Your task to perform on an android device: toggle notification dots Image 0: 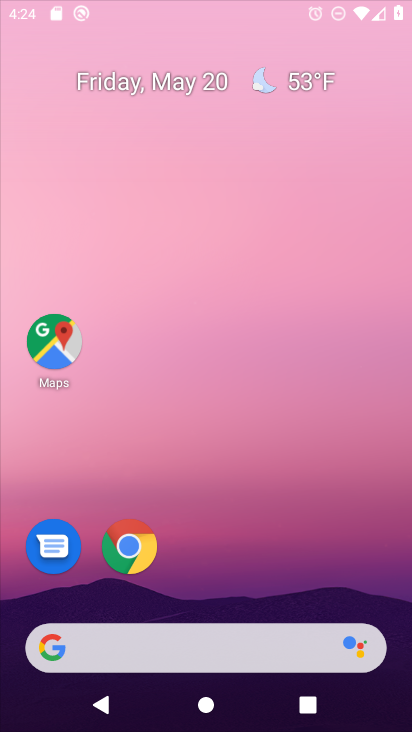
Step 0: click (141, 545)
Your task to perform on an android device: toggle notification dots Image 1: 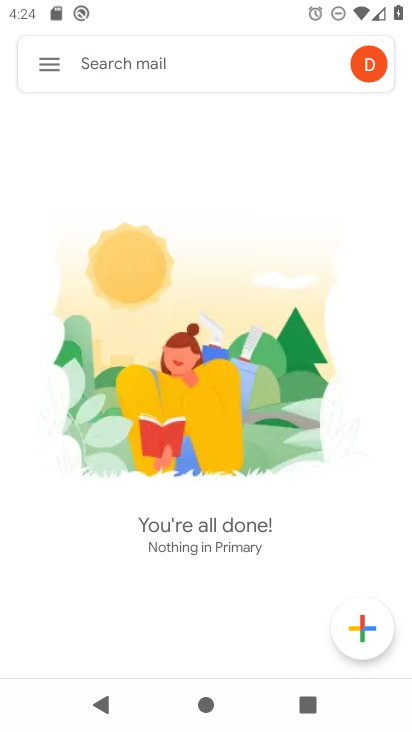
Step 1: click (33, 52)
Your task to perform on an android device: toggle notification dots Image 2: 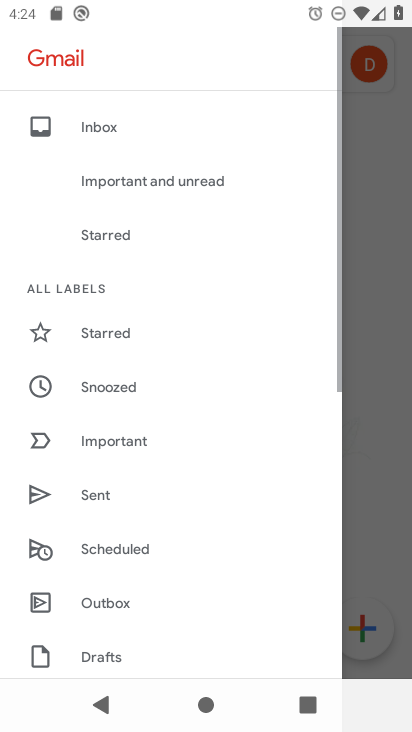
Step 2: drag from (84, 583) to (253, 165)
Your task to perform on an android device: toggle notification dots Image 3: 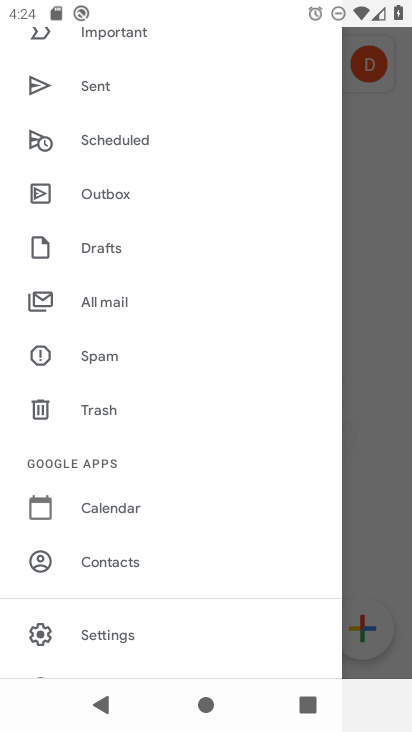
Step 3: click (121, 627)
Your task to perform on an android device: toggle notification dots Image 4: 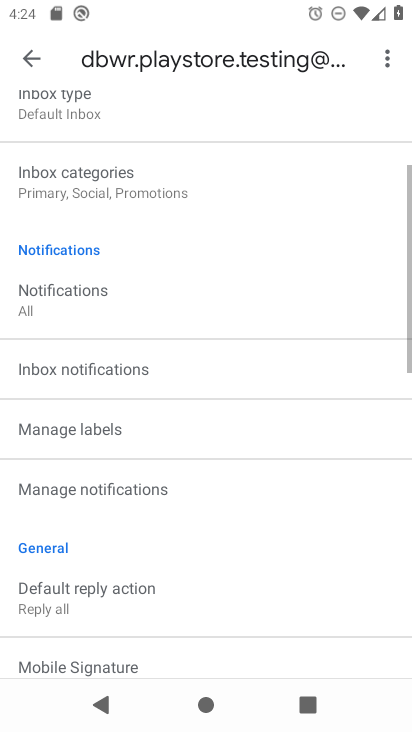
Step 4: drag from (135, 555) to (222, 329)
Your task to perform on an android device: toggle notification dots Image 5: 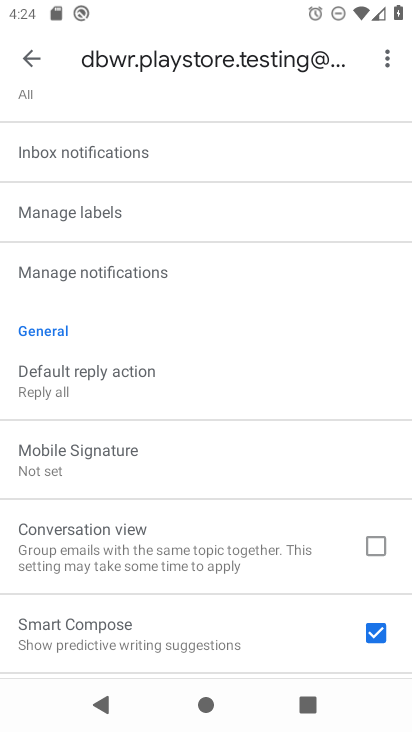
Step 5: click (165, 273)
Your task to perform on an android device: toggle notification dots Image 6: 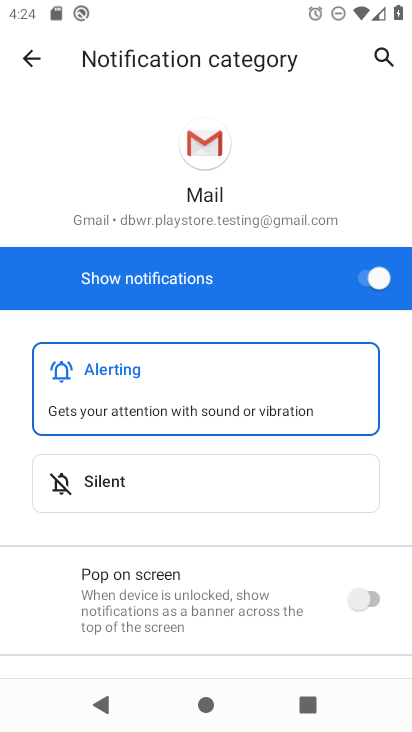
Step 6: press home button
Your task to perform on an android device: toggle notification dots Image 7: 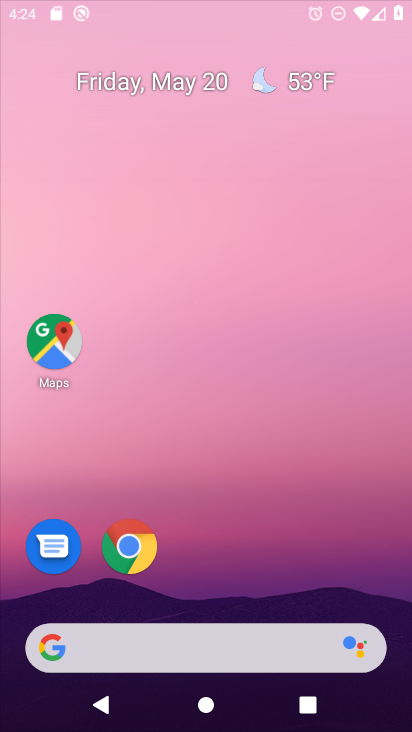
Step 7: drag from (247, 599) to (273, 140)
Your task to perform on an android device: toggle notification dots Image 8: 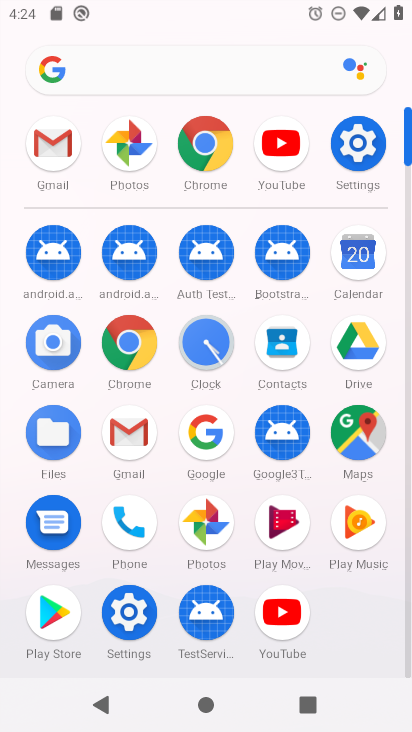
Step 8: click (342, 130)
Your task to perform on an android device: toggle notification dots Image 9: 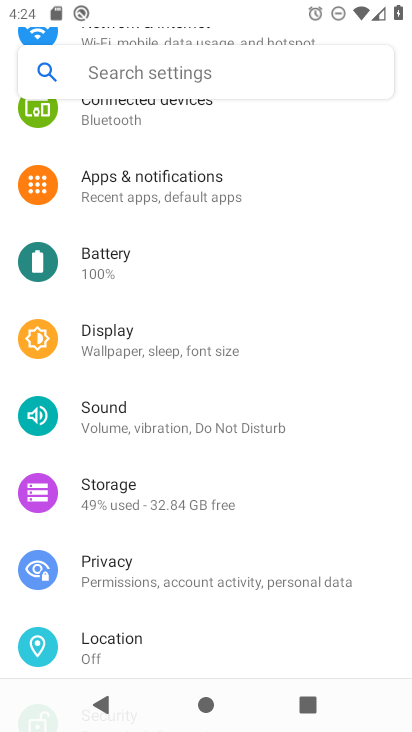
Step 9: drag from (149, 606) to (190, 701)
Your task to perform on an android device: toggle notification dots Image 10: 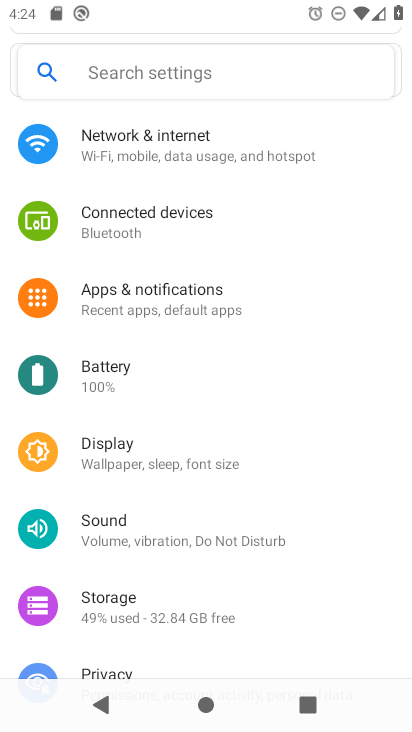
Step 10: click (139, 305)
Your task to perform on an android device: toggle notification dots Image 11: 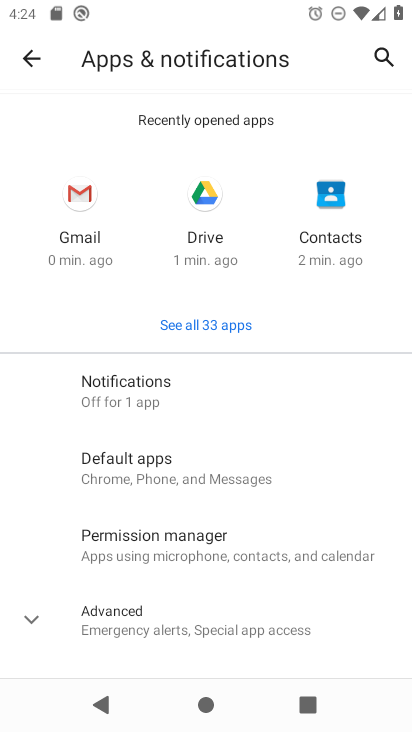
Step 11: click (162, 398)
Your task to perform on an android device: toggle notification dots Image 12: 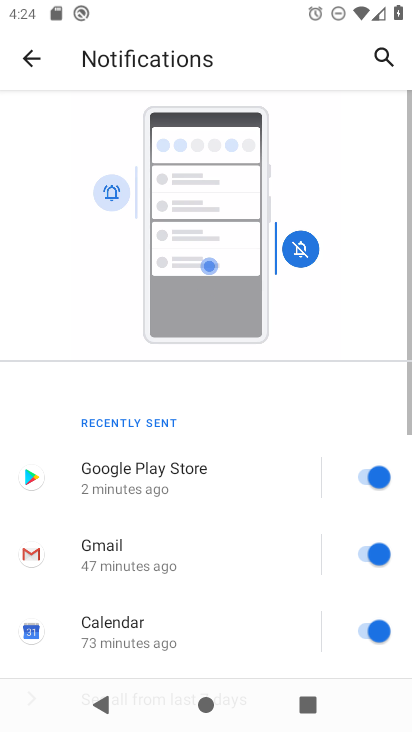
Step 12: drag from (214, 525) to (248, 93)
Your task to perform on an android device: toggle notification dots Image 13: 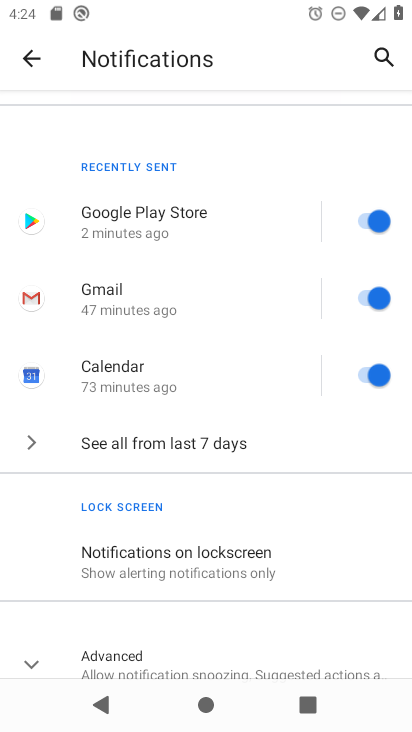
Step 13: drag from (220, 515) to (272, 141)
Your task to perform on an android device: toggle notification dots Image 14: 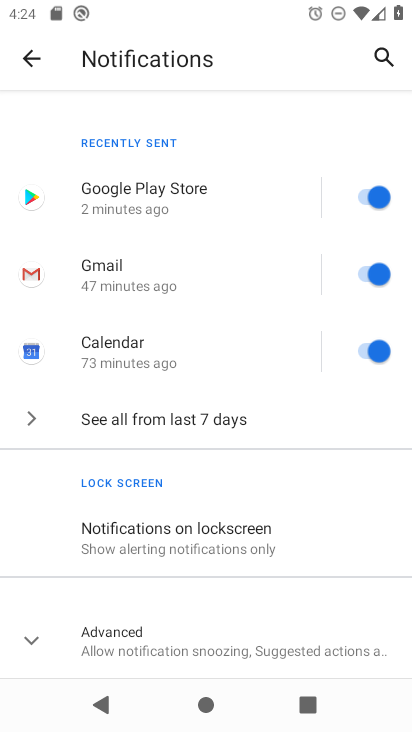
Step 14: click (148, 627)
Your task to perform on an android device: toggle notification dots Image 15: 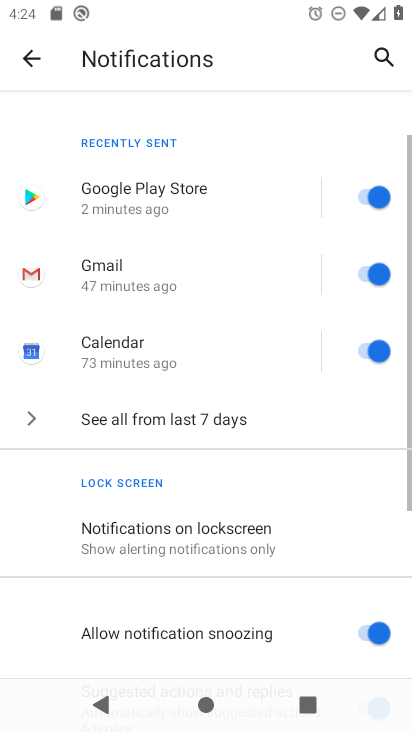
Step 15: drag from (259, 611) to (264, 198)
Your task to perform on an android device: toggle notification dots Image 16: 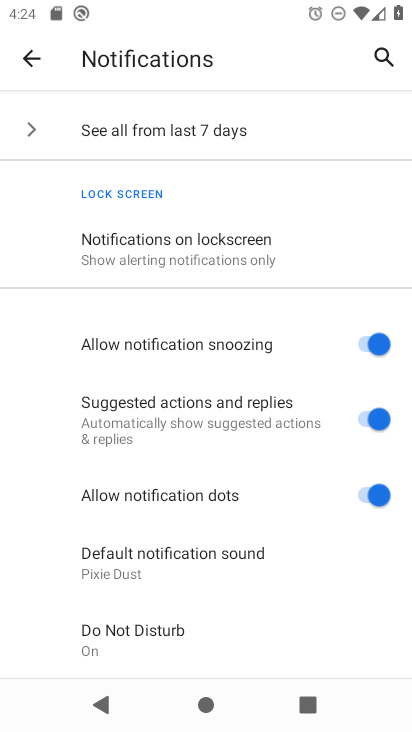
Step 16: click (384, 489)
Your task to perform on an android device: toggle notification dots Image 17: 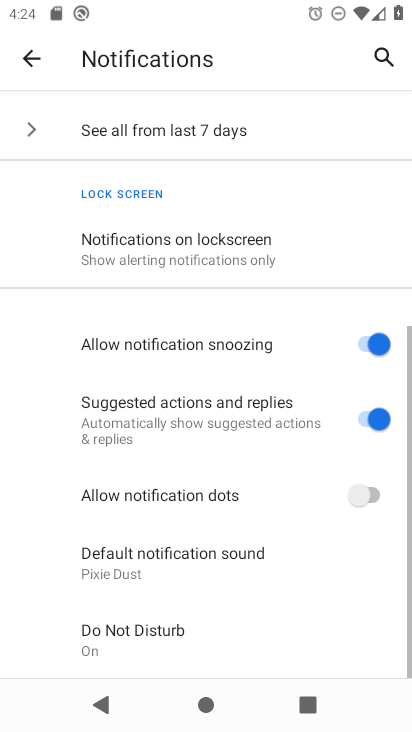
Step 17: task complete